Your task to perform on an android device: Open the Play Movies app and select the watchlist tab. Image 0: 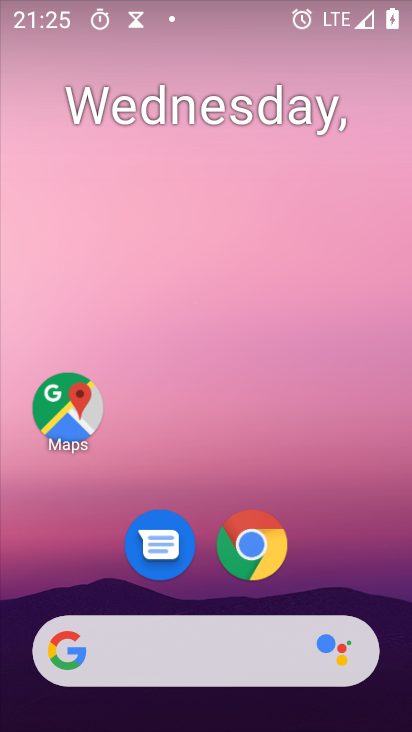
Step 0: press home button
Your task to perform on an android device: Open the Play Movies app and select the watchlist tab. Image 1: 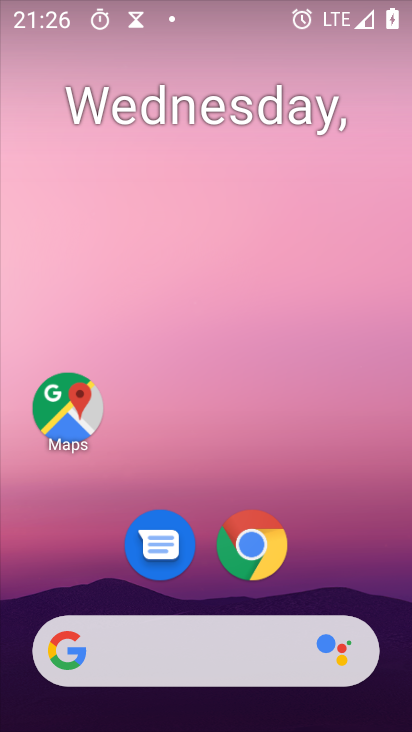
Step 1: drag from (147, 650) to (257, 352)
Your task to perform on an android device: Open the Play Movies app and select the watchlist tab. Image 2: 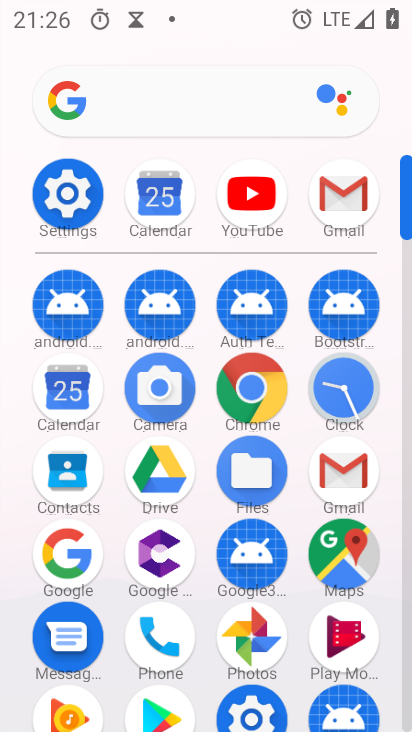
Step 2: click (343, 646)
Your task to perform on an android device: Open the Play Movies app and select the watchlist tab. Image 3: 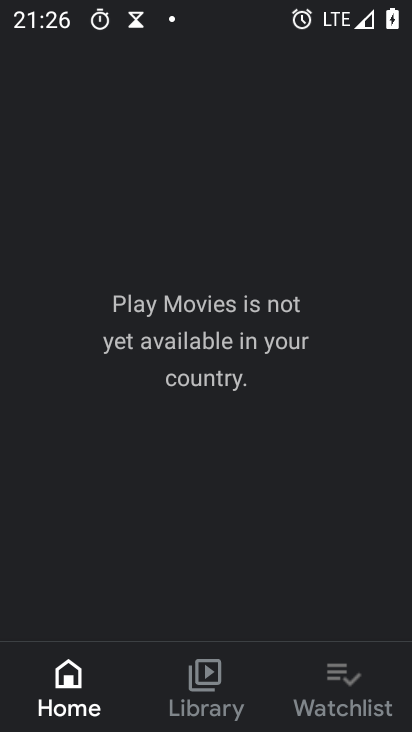
Step 3: click (312, 710)
Your task to perform on an android device: Open the Play Movies app and select the watchlist tab. Image 4: 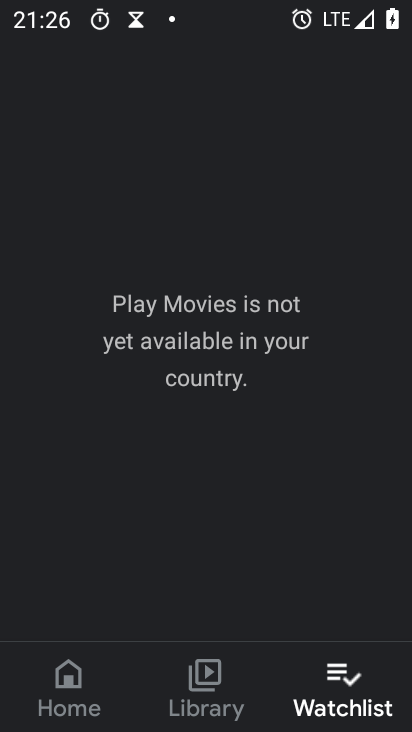
Step 4: task complete